Your task to perform on an android device: check android version Image 0: 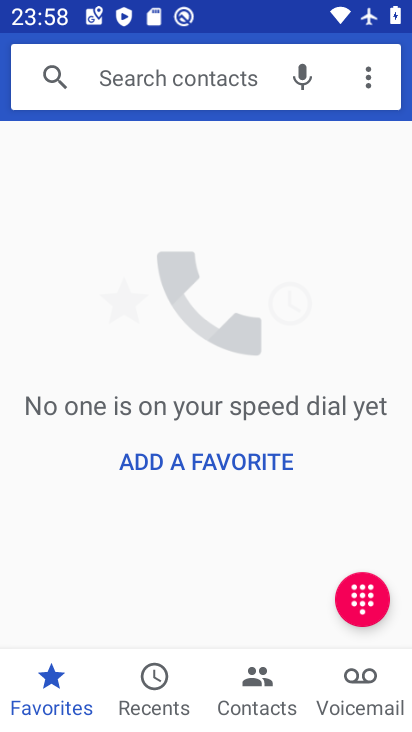
Step 0: press home button
Your task to perform on an android device: check android version Image 1: 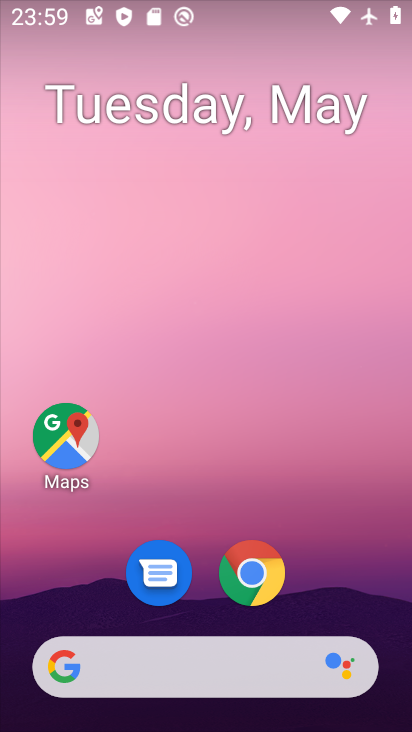
Step 1: drag from (334, 470) to (316, 263)
Your task to perform on an android device: check android version Image 2: 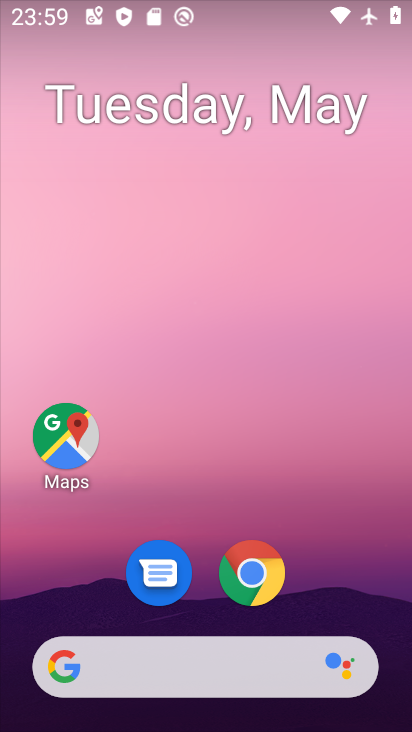
Step 2: drag from (357, 542) to (331, 206)
Your task to perform on an android device: check android version Image 3: 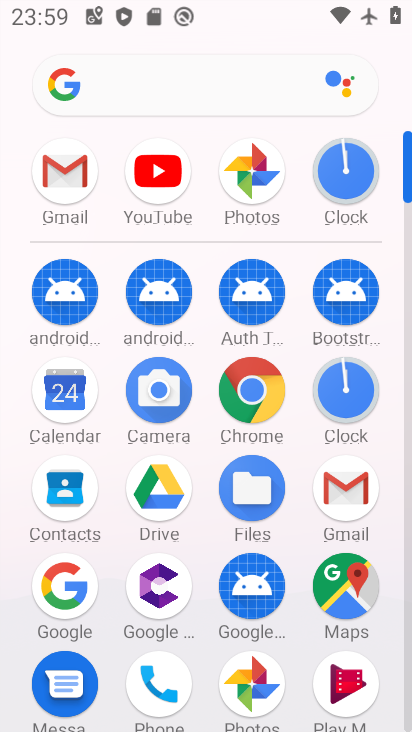
Step 3: drag from (101, 507) to (142, 283)
Your task to perform on an android device: check android version Image 4: 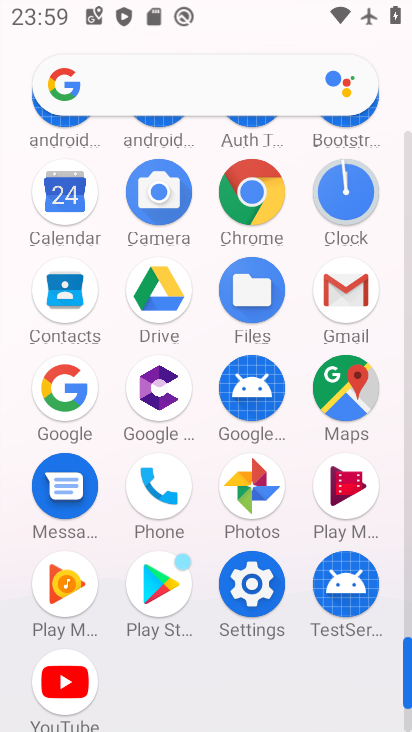
Step 4: click (250, 579)
Your task to perform on an android device: check android version Image 5: 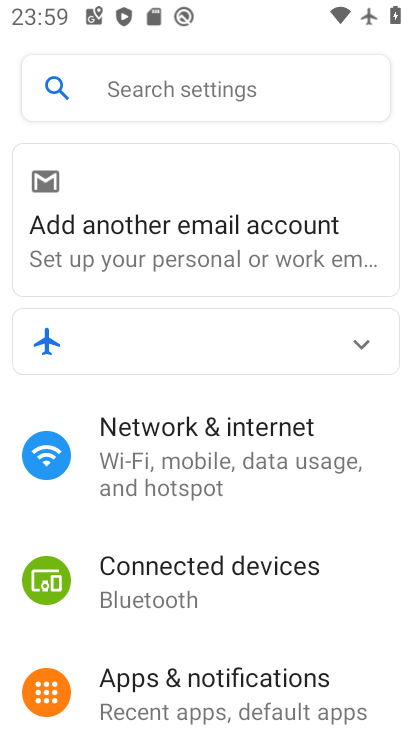
Step 5: task complete